Your task to perform on an android device: Go to notification settings Image 0: 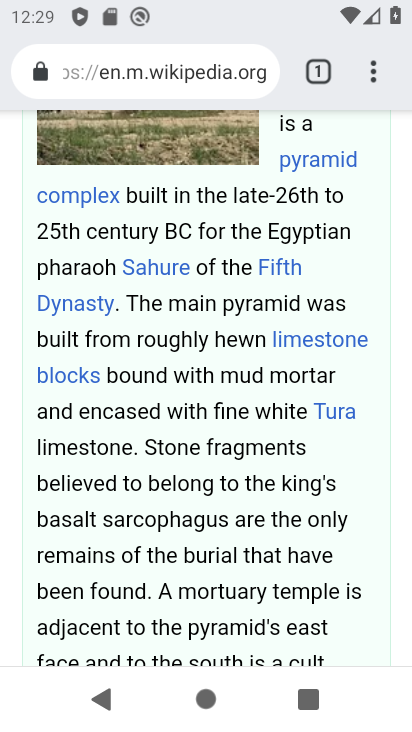
Step 0: press home button
Your task to perform on an android device: Go to notification settings Image 1: 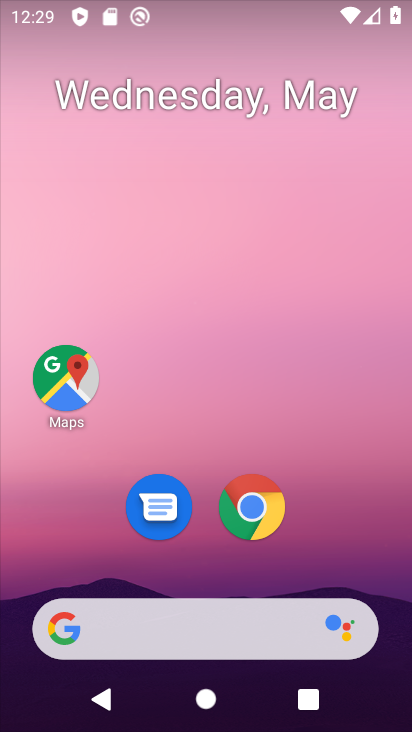
Step 1: drag from (397, 610) to (343, 4)
Your task to perform on an android device: Go to notification settings Image 2: 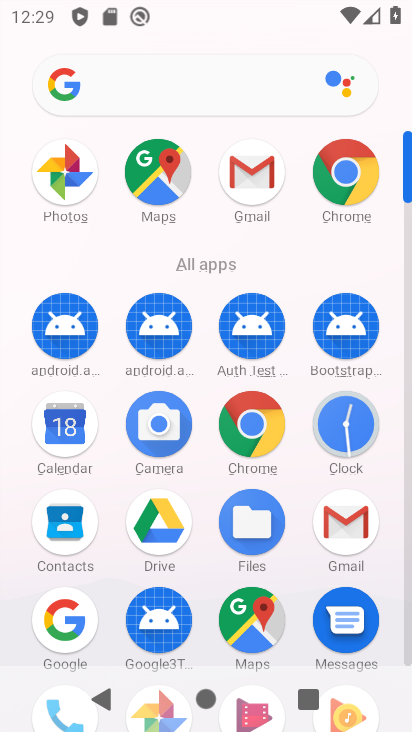
Step 2: click (407, 648)
Your task to perform on an android device: Go to notification settings Image 3: 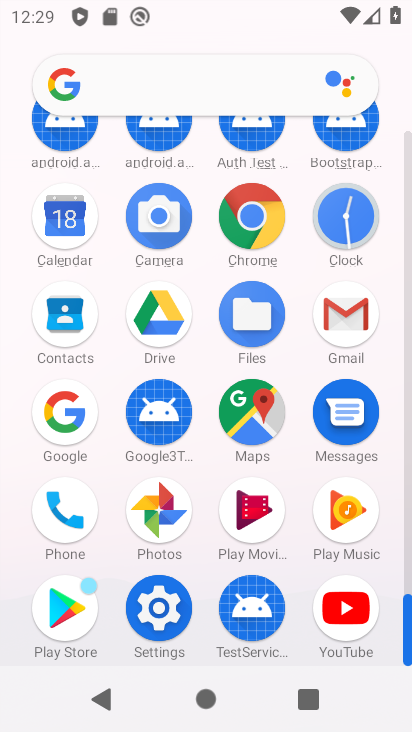
Step 3: click (159, 606)
Your task to perform on an android device: Go to notification settings Image 4: 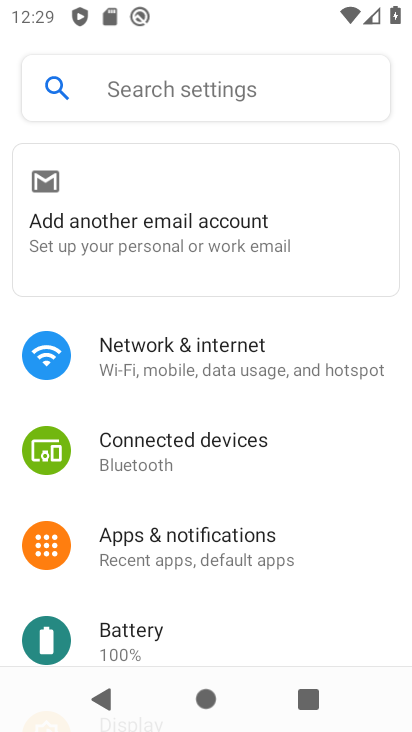
Step 4: drag from (256, 567) to (262, 374)
Your task to perform on an android device: Go to notification settings Image 5: 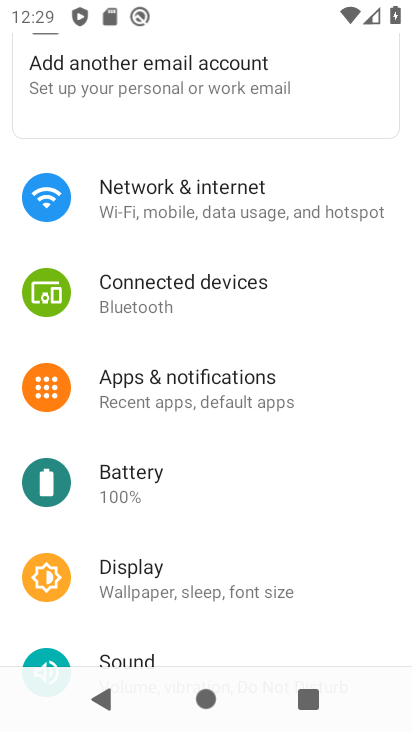
Step 5: click (187, 398)
Your task to perform on an android device: Go to notification settings Image 6: 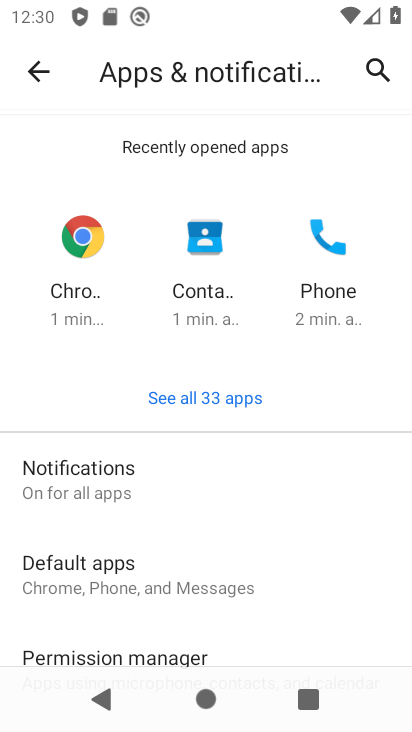
Step 6: click (101, 480)
Your task to perform on an android device: Go to notification settings Image 7: 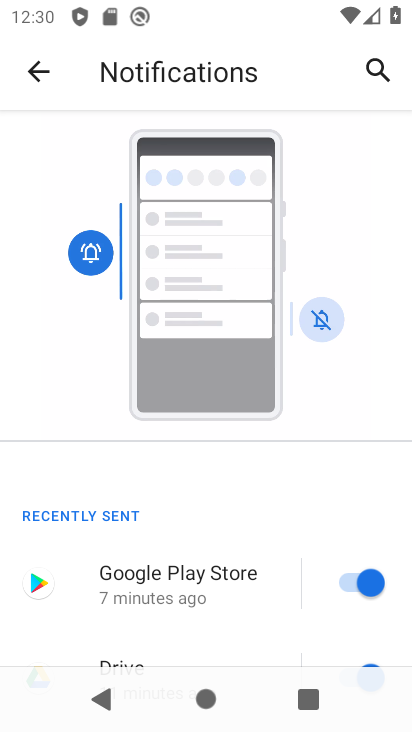
Step 7: task complete